Your task to perform on an android device: check out phone information Image 0: 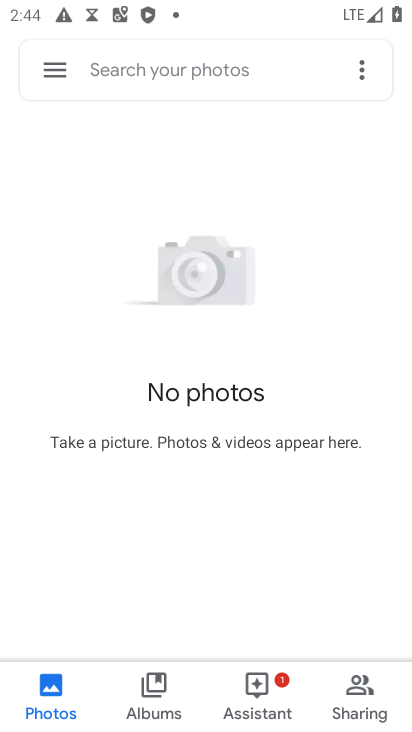
Step 0: press back button
Your task to perform on an android device: check out phone information Image 1: 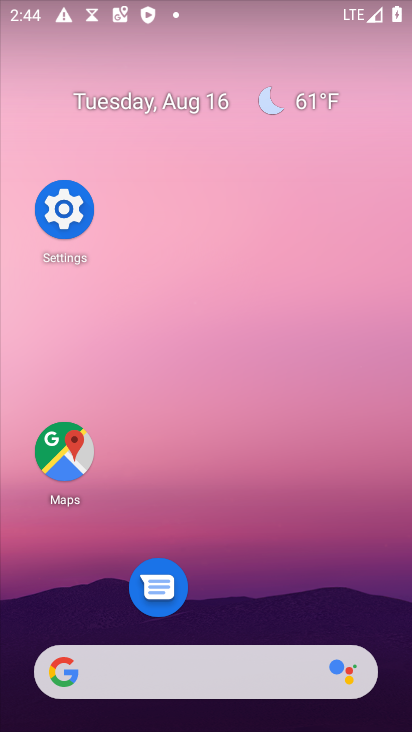
Step 1: drag from (256, 620) to (314, 49)
Your task to perform on an android device: check out phone information Image 2: 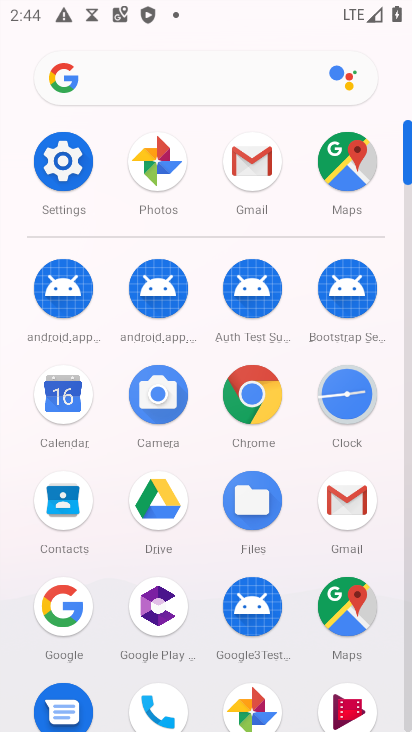
Step 2: click (75, 158)
Your task to perform on an android device: check out phone information Image 3: 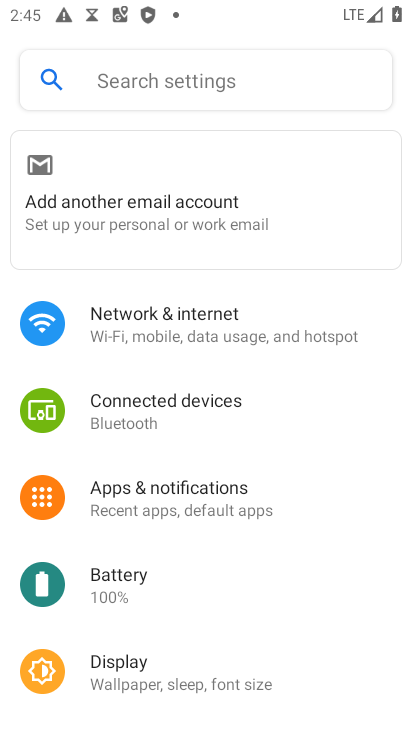
Step 3: drag from (113, 641) to (217, 82)
Your task to perform on an android device: check out phone information Image 4: 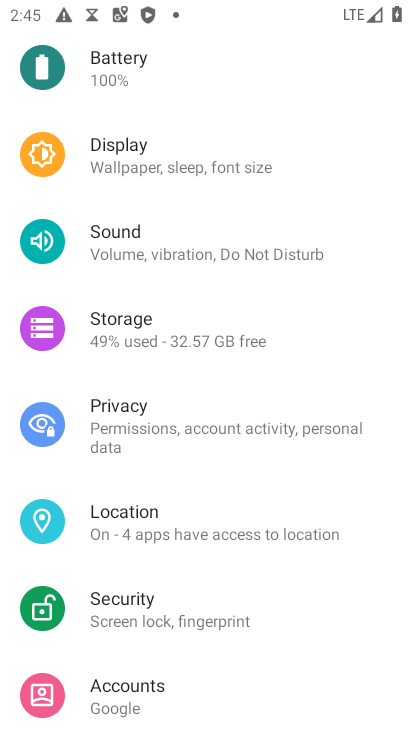
Step 4: drag from (146, 624) to (246, 51)
Your task to perform on an android device: check out phone information Image 5: 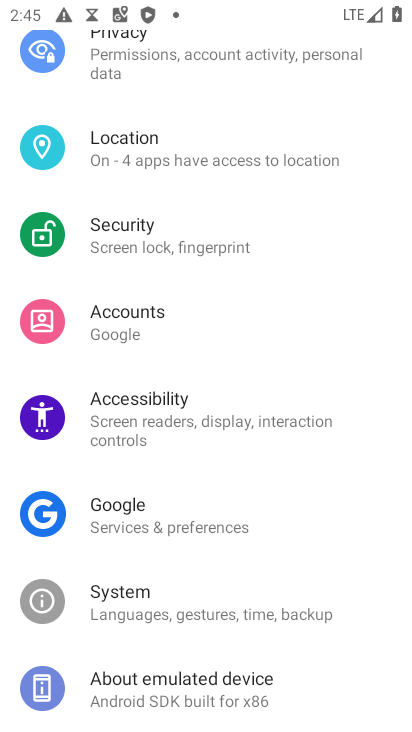
Step 5: click (203, 689)
Your task to perform on an android device: check out phone information Image 6: 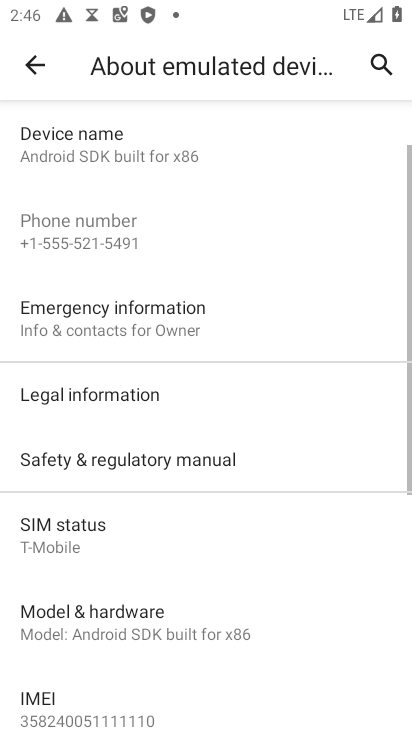
Step 6: task complete